Your task to perform on an android device: open a new tab in the chrome app Image 0: 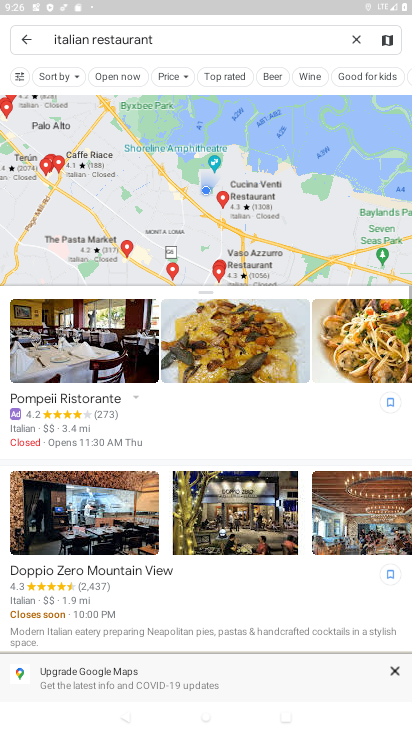
Step 0: press home button
Your task to perform on an android device: open a new tab in the chrome app Image 1: 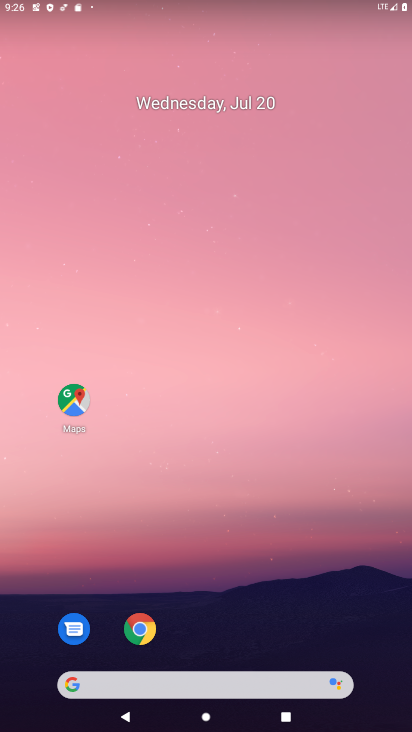
Step 1: click (134, 640)
Your task to perform on an android device: open a new tab in the chrome app Image 2: 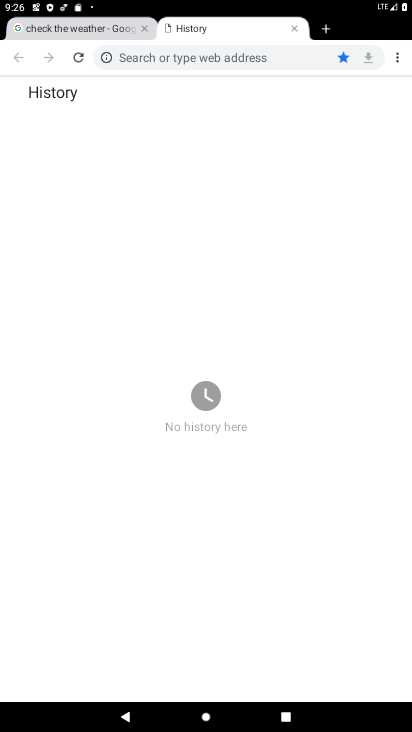
Step 2: click (328, 29)
Your task to perform on an android device: open a new tab in the chrome app Image 3: 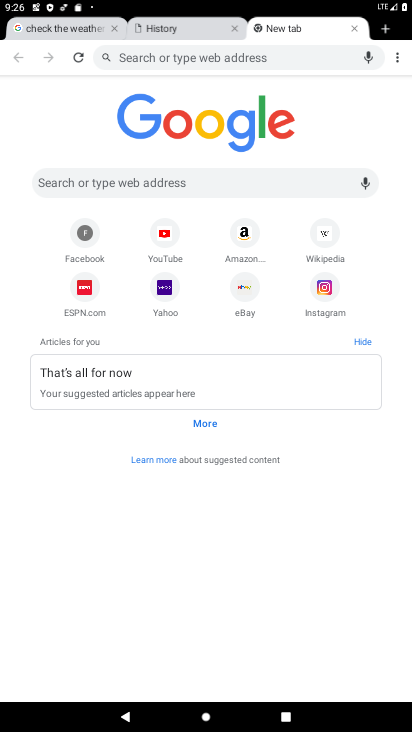
Step 3: task complete